Your task to perform on an android device: toggle notification dots Image 0: 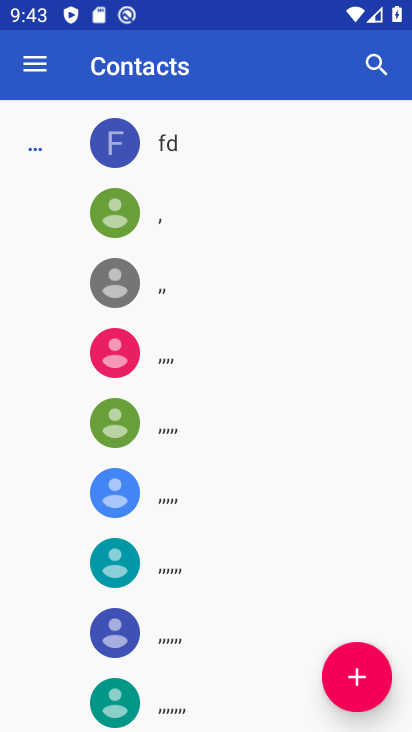
Step 0: press home button
Your task to perform on an android device: toggle notification dots Image 1: 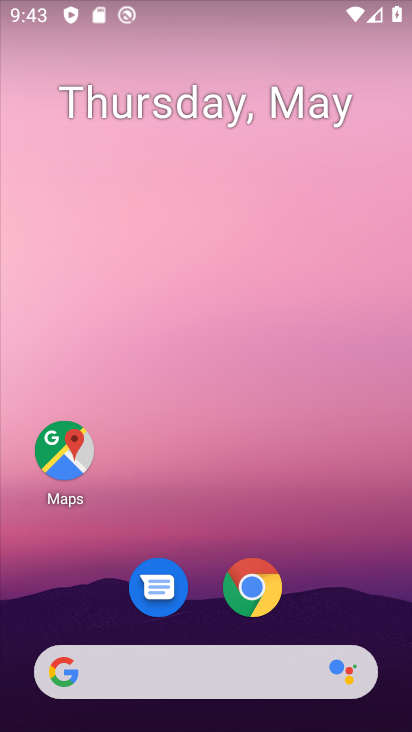
Step 1: drag from (353, 610) to (317, 15)
Your task to perform on an android device: toggle notification dots Image 2: 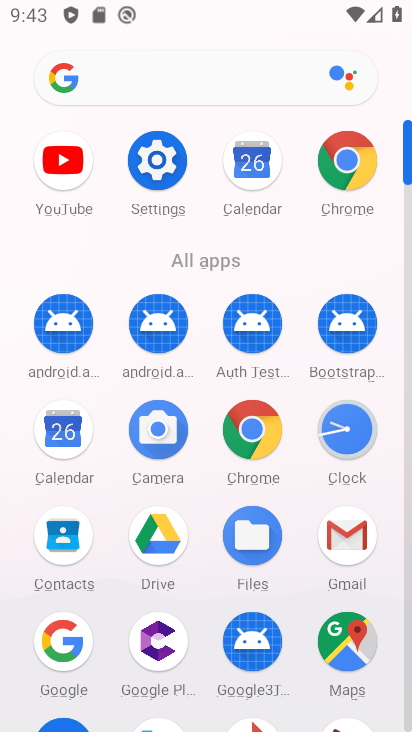
Step 2: click (168, 162)
Your task to perform on an android device: toggle notification dots Image 3: 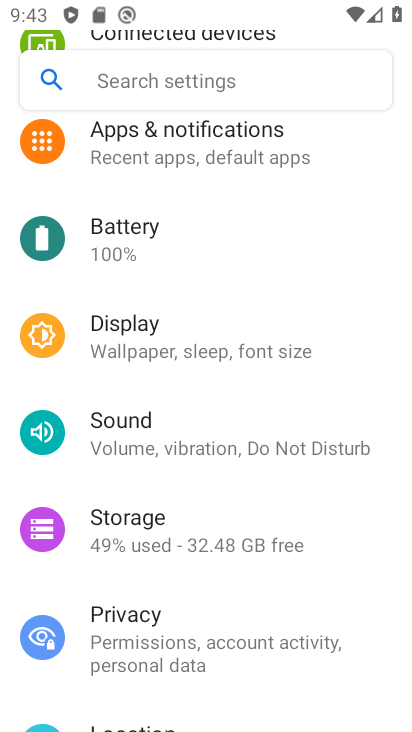
Step 3: click (189, 122)
Your task to perform on an android device: toggle notification dots Image 4: 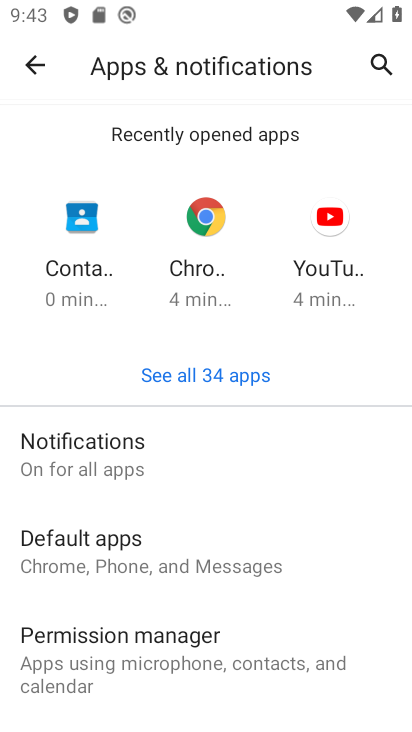
Step 4: click (63, 463)
Your task to perform on an android device: toggle notification dots Image 5: 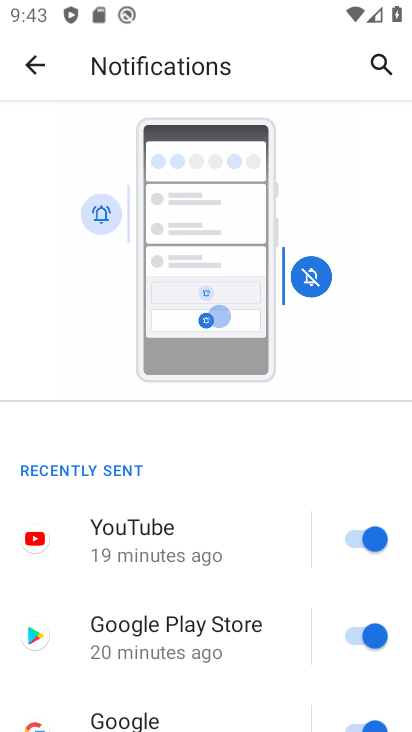
Step 5: drag from (187, 494) to (311, 117)
Your task to perform on an android device: toggle notification dots Image 6: 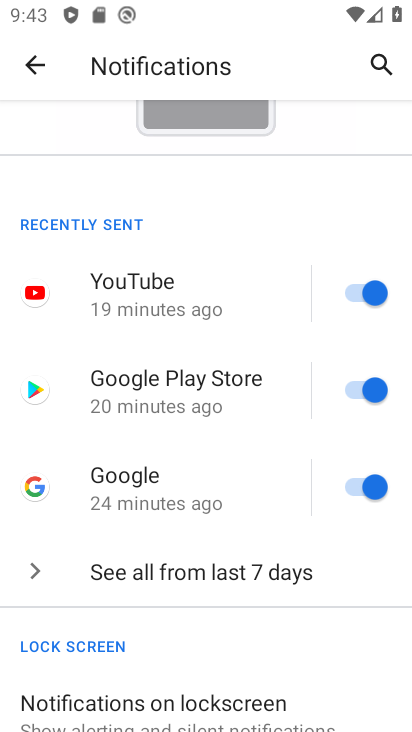
Step 6: drag from (198, 688) to (387, 29)
Your task to perform on an android device: toggle notification dots Image 7: 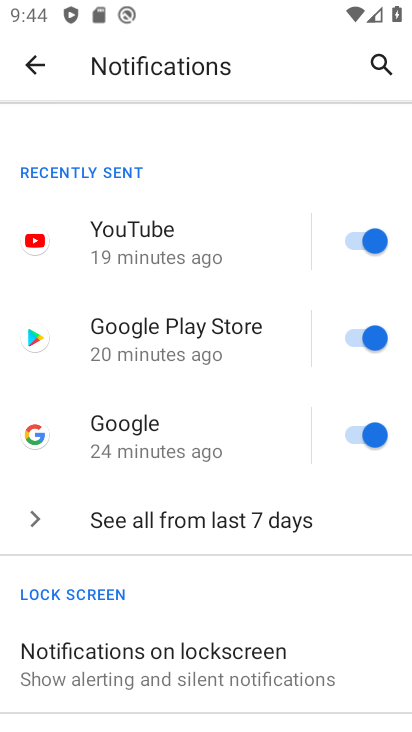
Step 7: drag from (269, 691) to (281, 254)
Your task to perform on an android device: toggle notification dots Image 8: 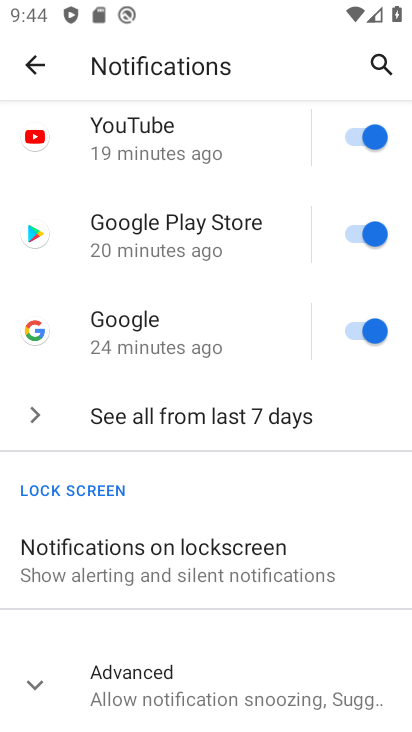
Step 8: click (262, 683)
Your task to perform on an android device: toggle notification dots Image 9: 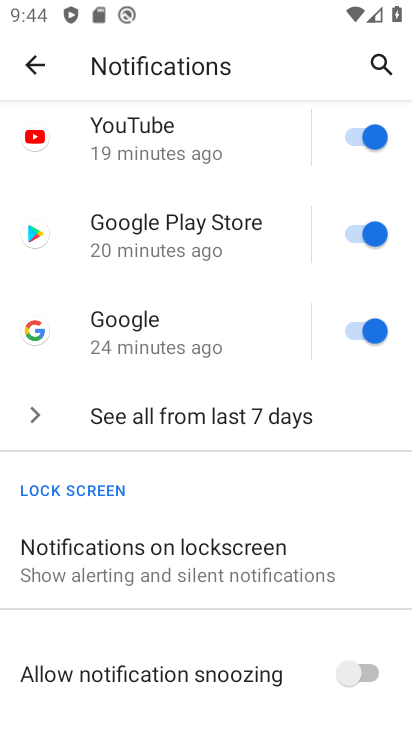
Step 9: drag from (260, 643) to (209, 144)
Your task to perform on an android device: toggle notification dots Image 10: 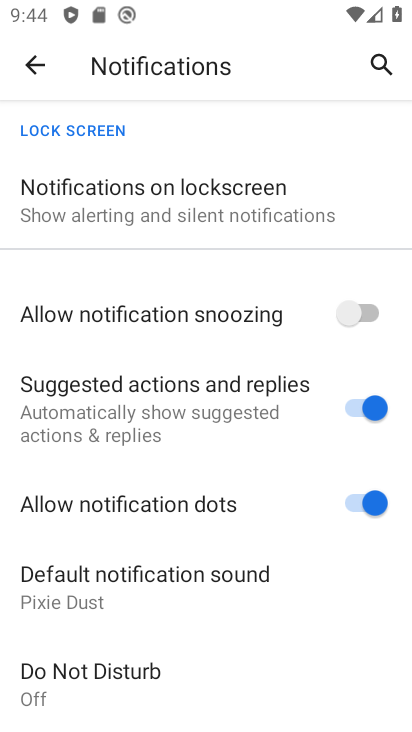
Step 10: click (357, 504)
Your task to perform on an android device: toggle notification dots Image 11: 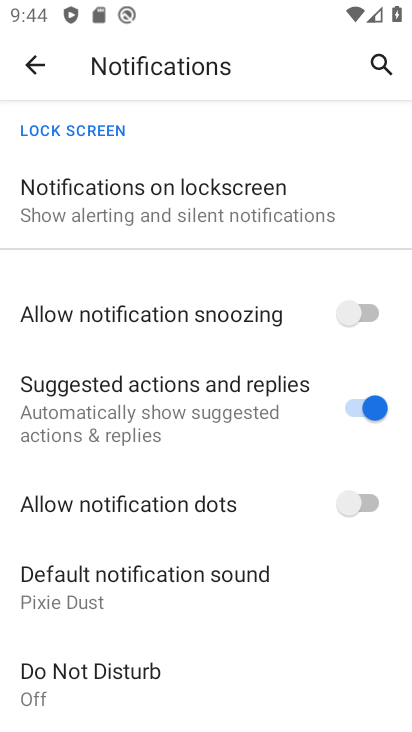
Step 11: task complete